Your task to perform on an android device: Open the calendar app, open the side menu, and click the "Day" option Image 0: 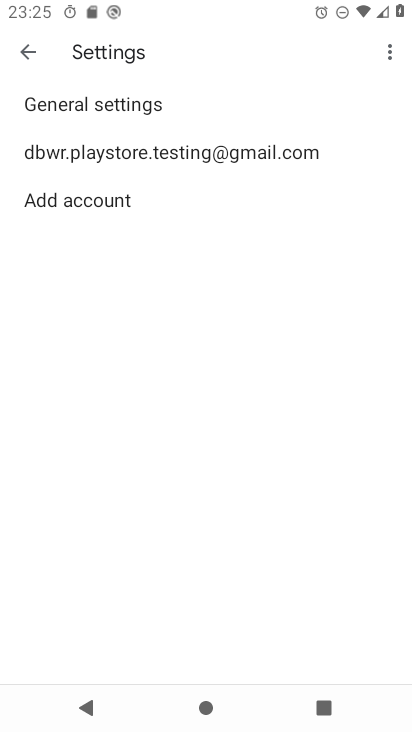
Step 0: press home button
Your task to perform on an android device: Open the calendar app, open the side menu, and click the "Day" option Image 1: 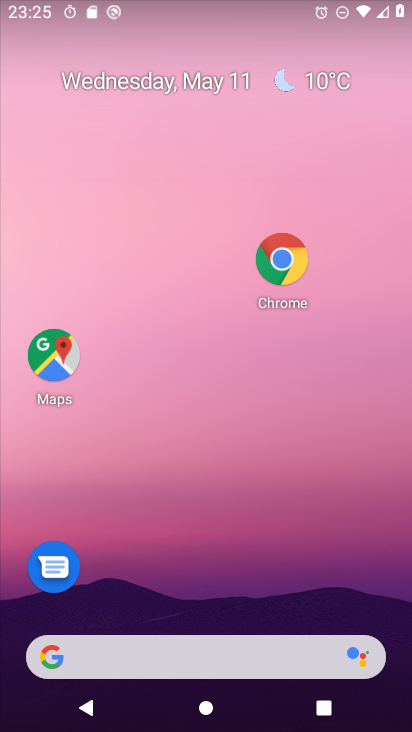
Step 1: drag from (224, 543) to (297, 153)
Your task to perform on an android device: Open the calendar app, open the side menu, and click the "Day" option Image 2: 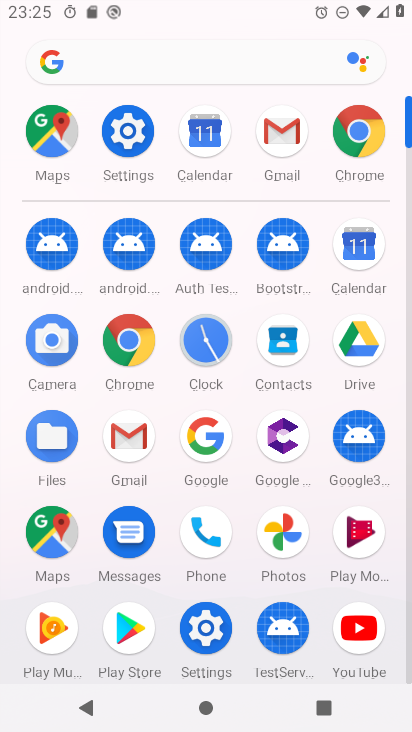
Step 2: click (355, 249)
Your task to perform on an android device: Open the calendar app, open the side menu, and click the "Day" option Image 3: 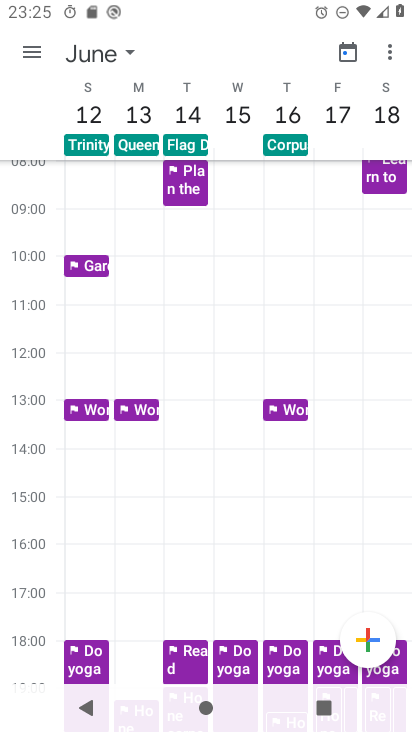
Step 3: click (29, 60)
Your task to perform on an android device: Open the calendar app, open the side menu, and click the "Day" option Image 4: 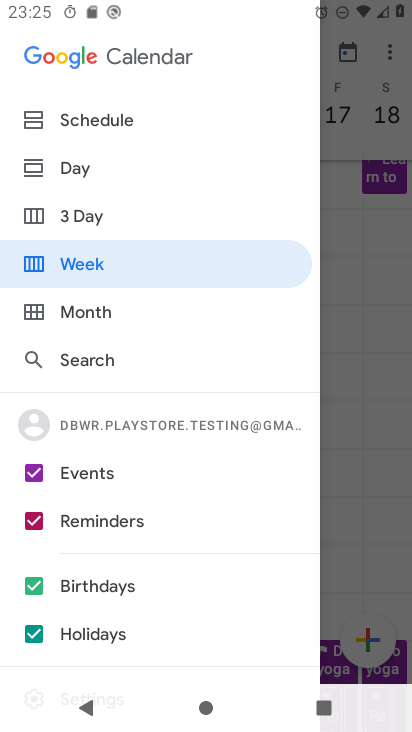
Step 4: click (82, 170)
Your task to perform on an android device: Open the calendar app, open the side menu, and click the "Day" option Image 5: 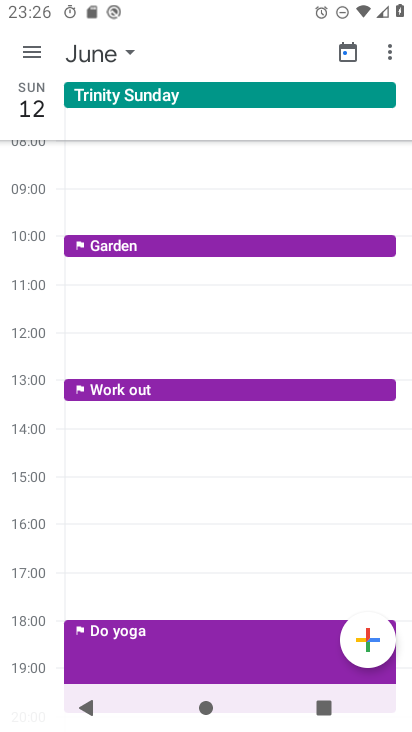
Step 5: task complete